Your task to perform on an android device: What's on my calendar today? Image 0: 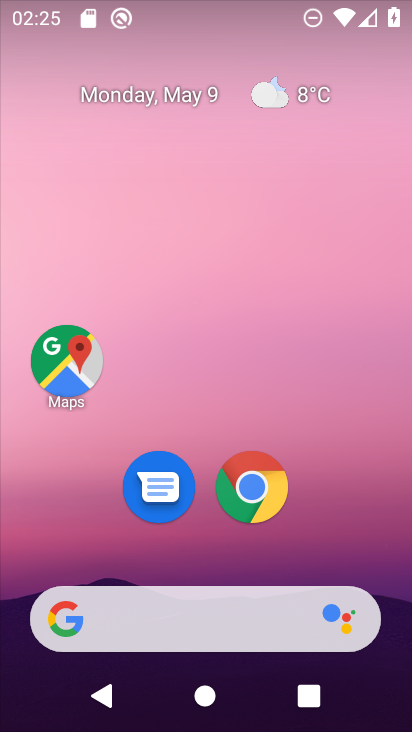
Step 0: drag from (367, 551) to (320, 110)
Your task to perform on an android device: What's on my calendar today? Image 1: 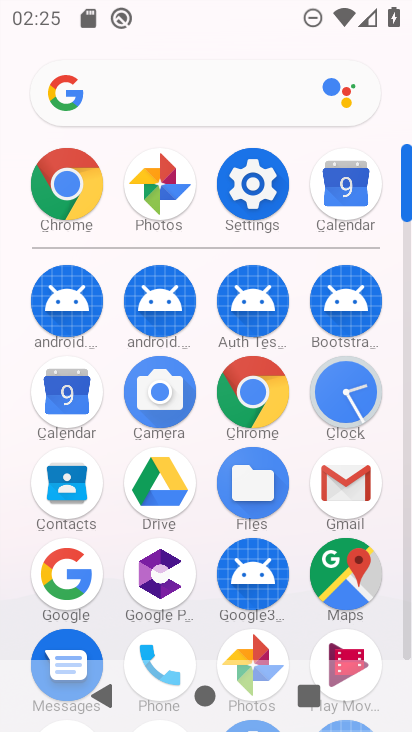
Step 1: click (61, 398)
Your task to perform on an android device: What's on my calendar today? Image 2: 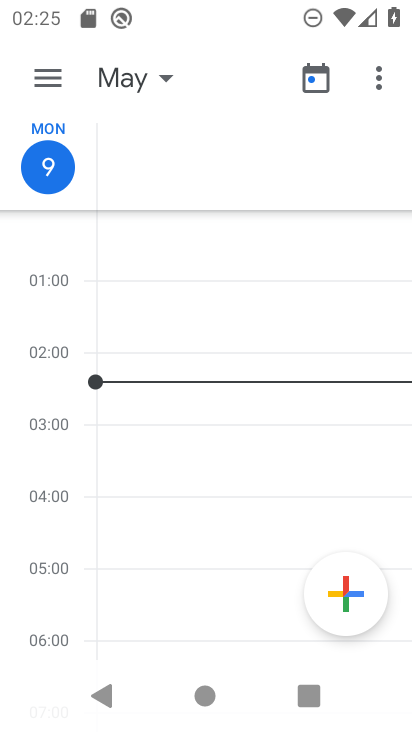
Step 2: click (51, 60)
Your task to perform on an android device: What's on my calendar today? Image 3: 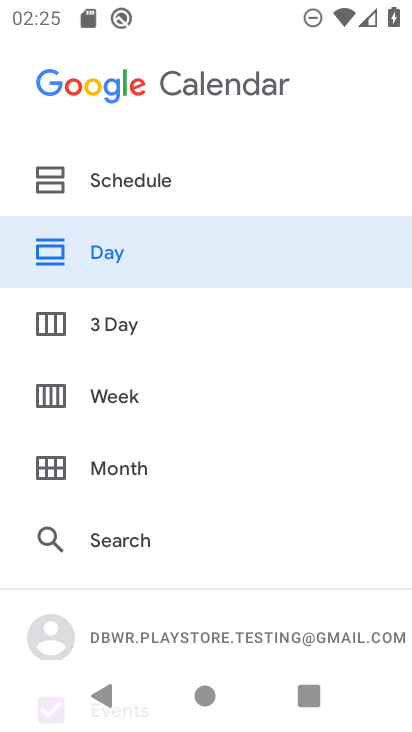
Step 3: click (139, 241)
Your task to perform on an android device: What's on my calendar today? Image 4: 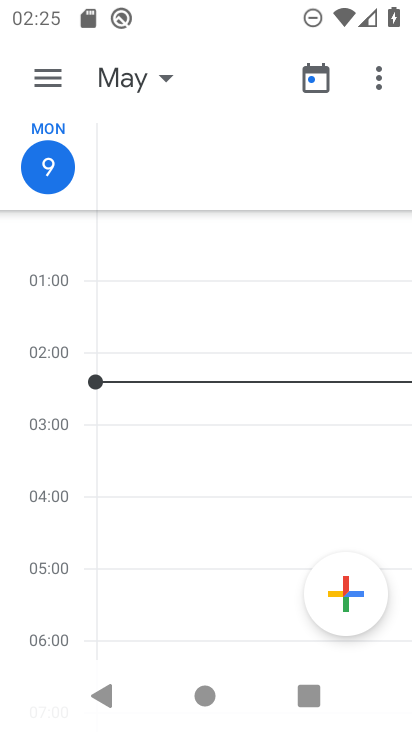
Step 4: task complete